Your task to perform on an android device: turn on improve location accuracy Image 0: 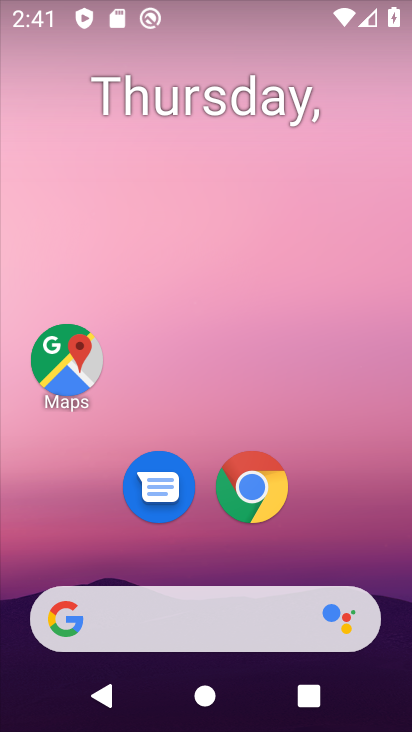
Step 0: drag from (360, 489) to (333, 45)
Your task to perform on an android device: turn on improve location accuracy Image 1: 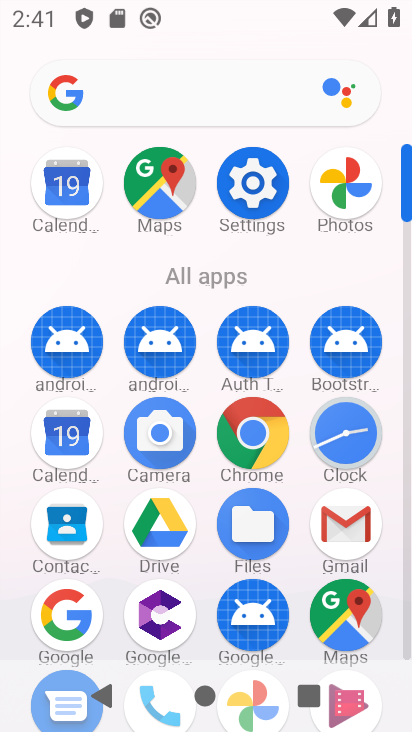
Step 1: click (262, 184)
Your task to perform on an android device: turn on improve location accuracy Image 2: 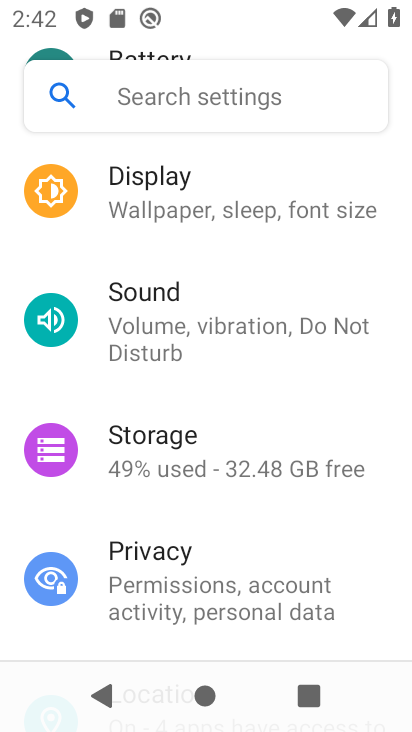
Step 2: drag from (218, 597) to (293, 145)
Your task to perform on an android device: turn on improve location accuracy Image 3: 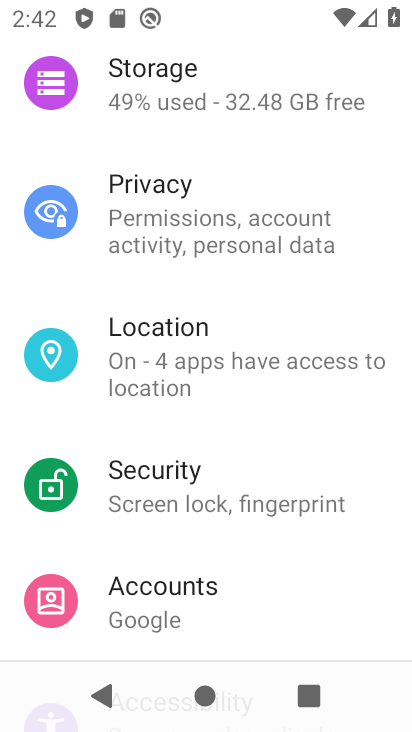
Step 3: click (240, 338)
Your task to perform on an android device: turn on improve location accuracy Image 4: 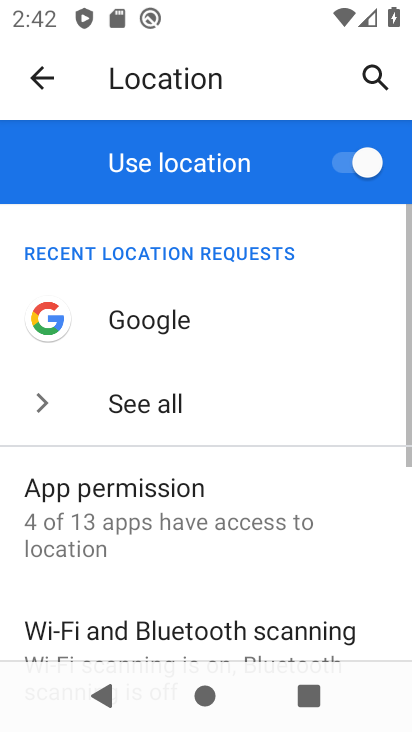
Step 4: drag from (211, 509) to (219, 216)
Your task to perform on an android device: turn on improve location accuracy Image 5: 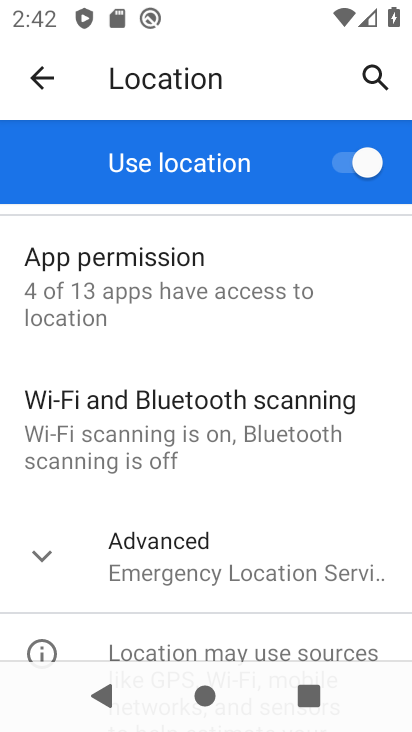
Step 5: drag from (141, 609) to (151, 289)
Your task to perform on an android device: turn on improve location accuracy Image 6: 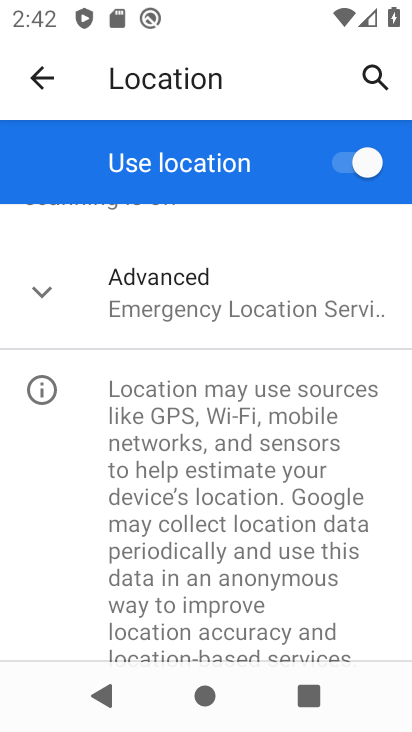
Step 6: click (151, 290)
Your task to perform on an android device: turn on improve location accuracy Image 7: 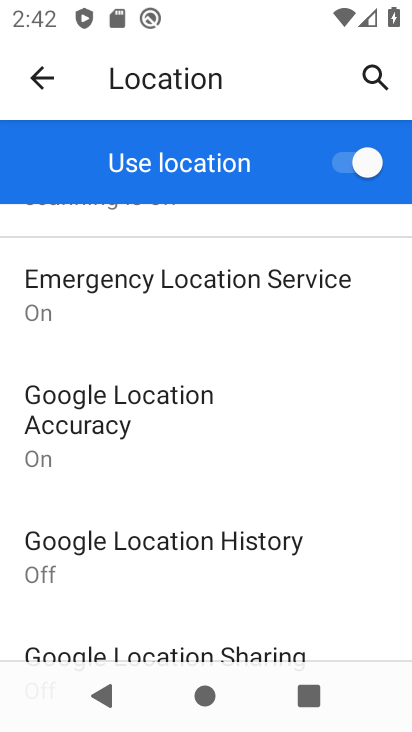
Step 7: drag from (157, 616) to (148, 339)
Your task to perform on an android device: turn on improve location accuracy Image 8: 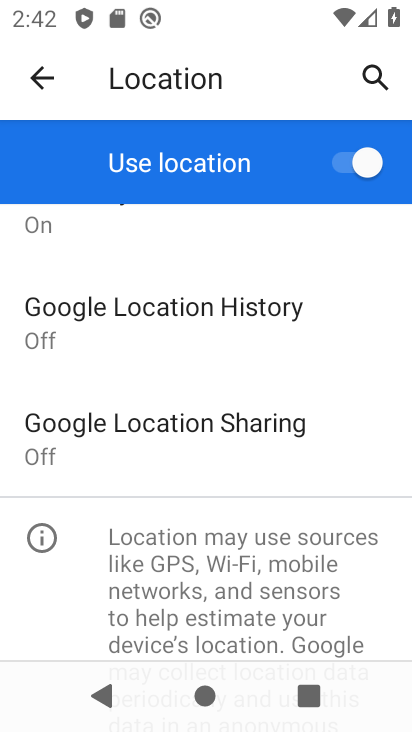
Step 8: drag from (147, 339) to (203, 642)
Your task to perform on an android device: turn on improve location accuracy Image 9: 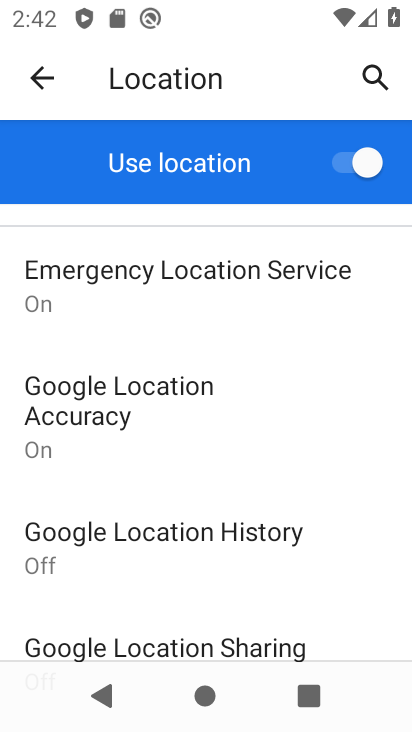
Step 9: click (121, 371)
Your task to perform on an android device: turn on improve location accuracy Image 10: 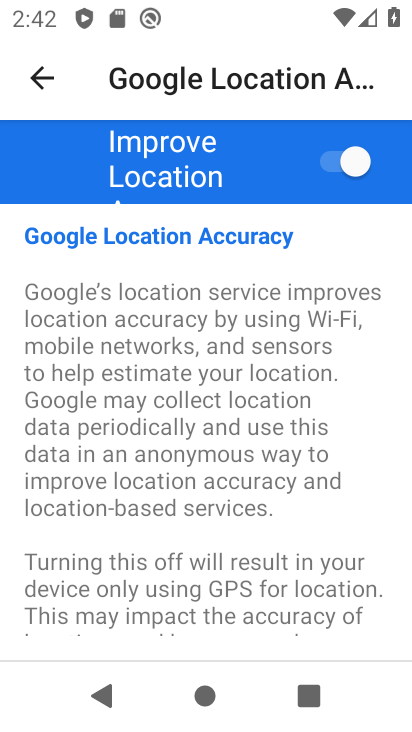
Step 10: task complete